Your task to perform on an android device: show emergency info Image 0: 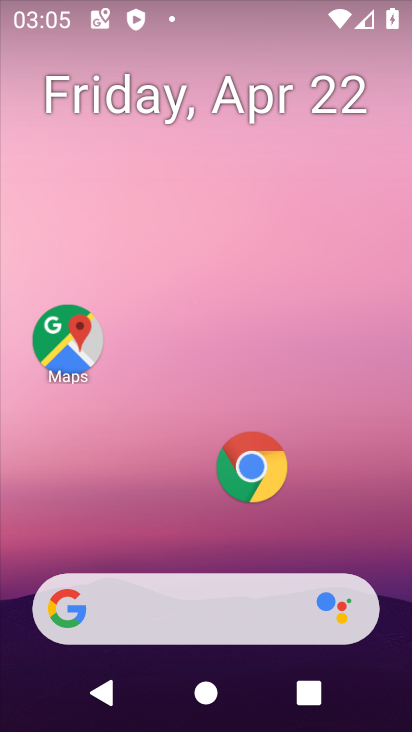
Step 0: drag from (152, 547) to (193, 87)
Your task to perform on an android device: show emergency info Image 1: 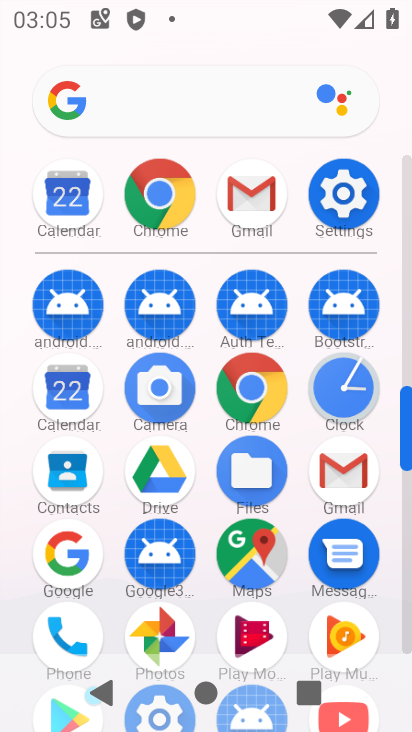
Step 1: click (343, 189)
Your task to perform on an android device: show emergency info Image 2: 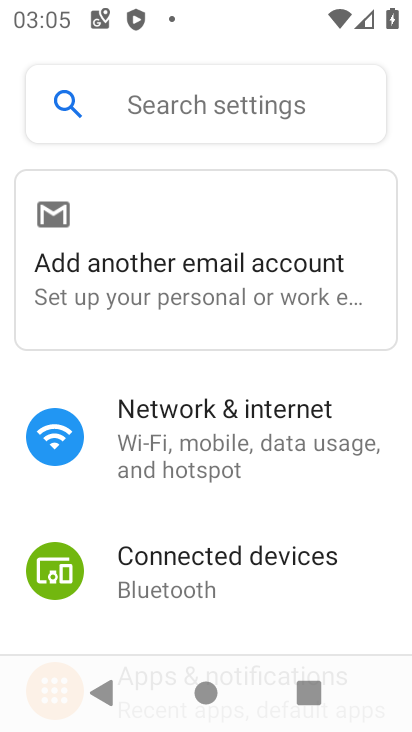
Step 2: drag from (212, 635) to (267, 208)
Your task to perform on an android device: show emergency info Image 3: 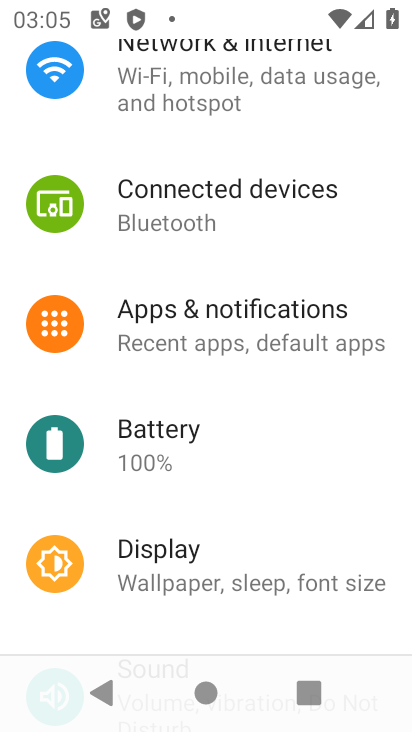
Step 3: drag from (208, 507) to (260, 188)
Your task to perform on an android device: show emergency info Image 4: 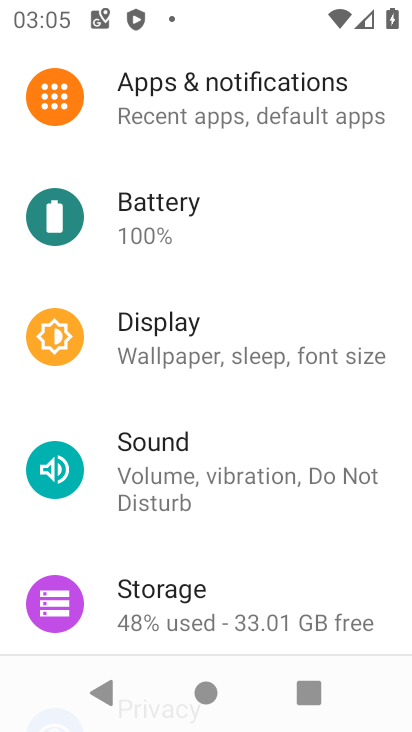
Step 4: drag from (195, 591) to (279, 213)
Your task to perform on an android device: show emergency info Image 5: 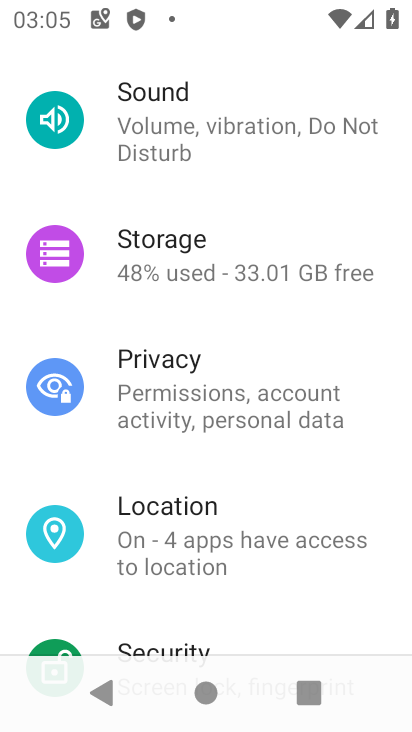
Step 5: drag from (173, 599) to (265, 242)
Your task to perform on an android device: show emergency info Image 6: 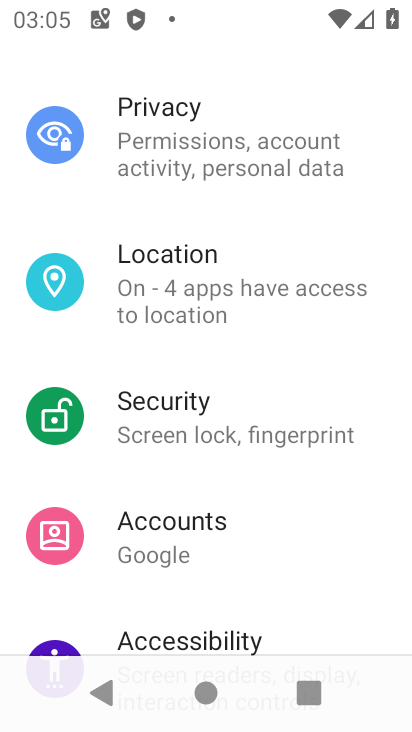
Step 6: drag from (170, 591) to (252, 257)
Your task to perform on an android device: show emergency info Image 7: 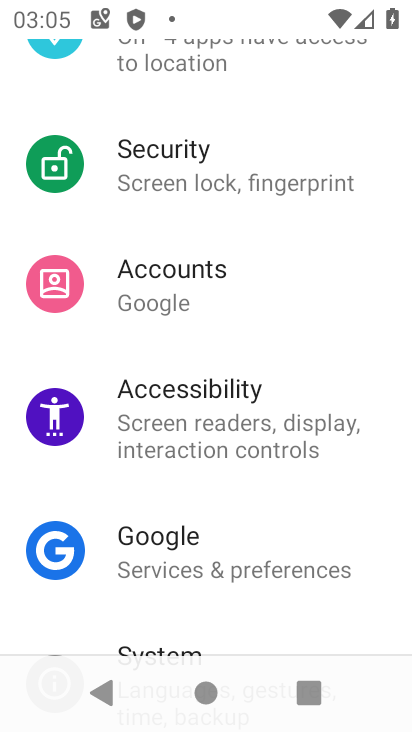
Step 7: drag from (170, 593) to (229, 291)
Your task to perform on an android device: show emergency info Image 8: 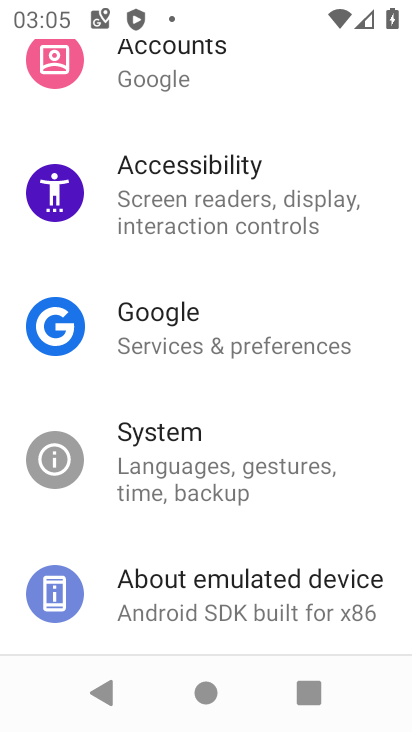
Step 8: click (207, 596)
Your task to perform on an android device: show emergency info Image 9: 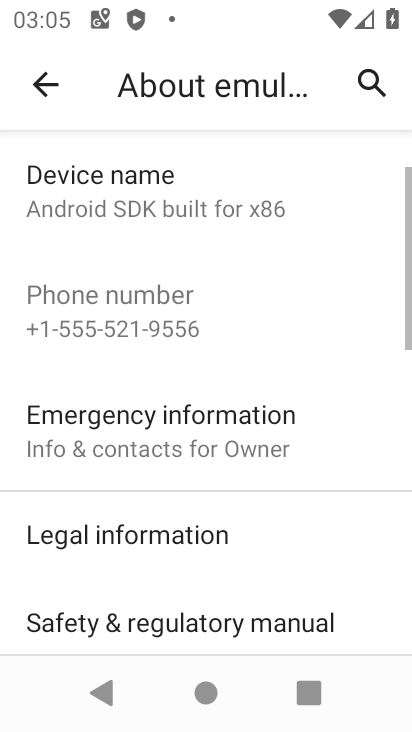
Step 9: click (188, 444)
Your task to perform on an android device: show emergency info Image 10: 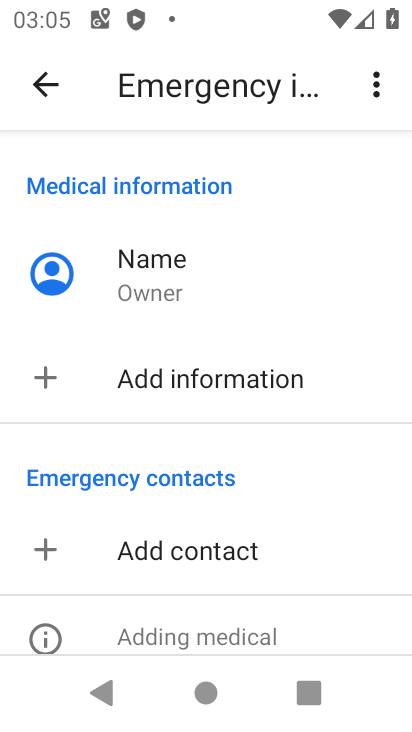
Step 10: task complete